Your task to perform on an android device: Search for pizza restaurants on Maps Image 0: 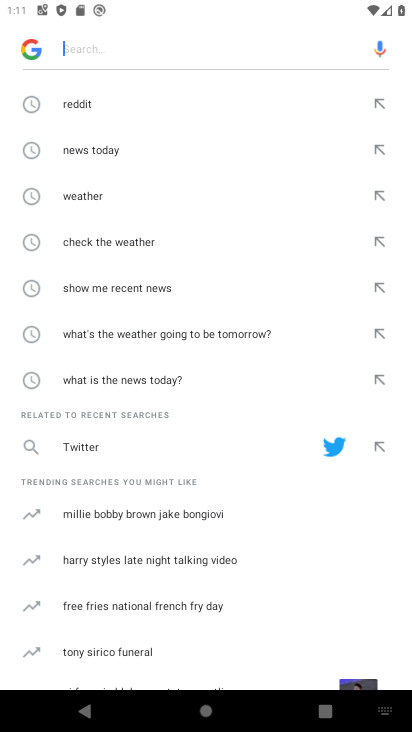
Step 0: press home button
Your task to perform on an android device: Search for pizza restaurants on Maps Image 1: 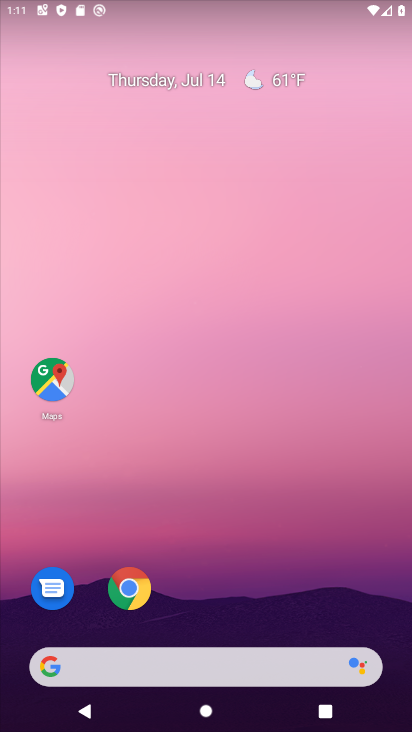
Step 1: click (49, 388)
Your task to perform on an android device: Search for pizza restaurants on Maps Image 2: 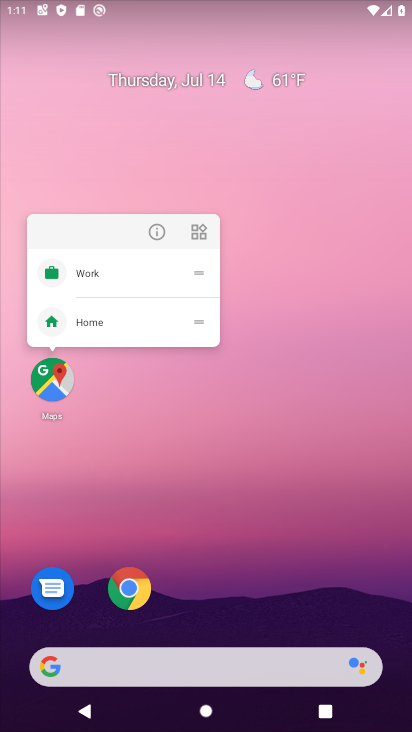
Step 2: click (59, 386)
Your task to perform on an android device: Search for pizza restaurants on Maps Image 3: 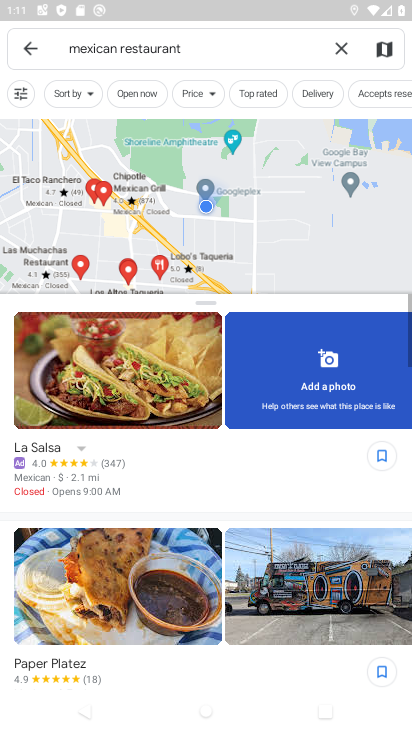
Step 3: click (329, 46)
Your task to perform on an android device: Search for pizza restaurants on Maps Image 4: 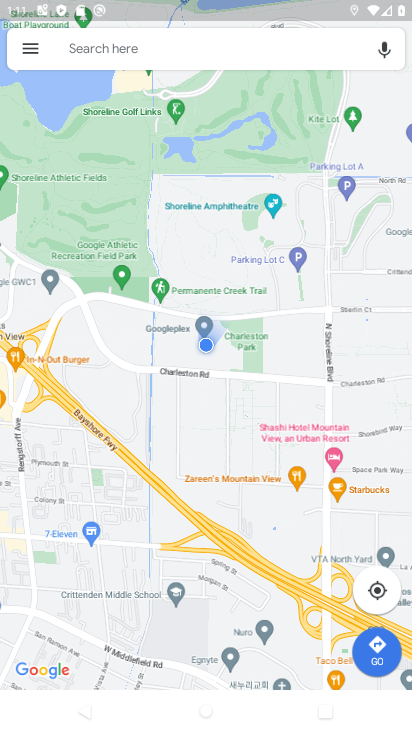
Step 4: click (229, 51)
Your task to perform on an android device: Search for pizza restaurants on Maps Image 5: 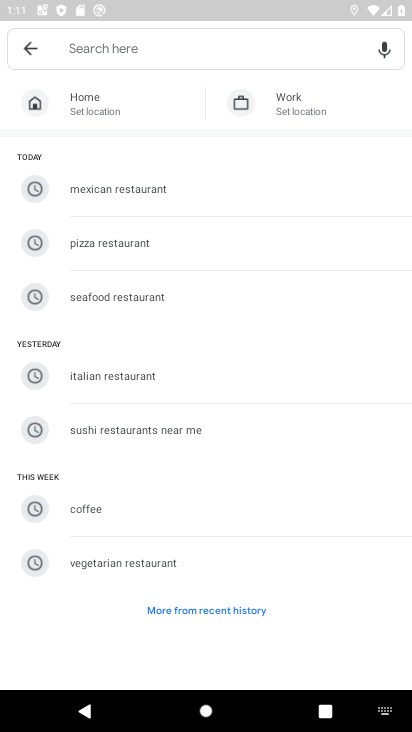
Step 5: type "pizza restaurants  "
Your task to perform on an android device: Search for pizza restaurants on Maps Image 6: 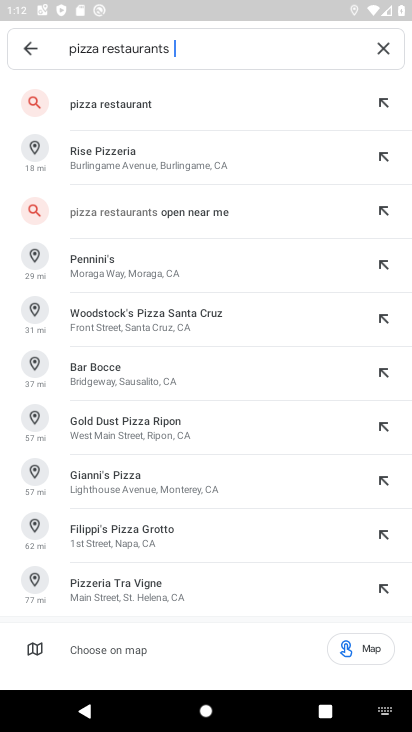
Step 6: click (141, 101)
Your task to perform on an android device: Search for pizza restaurants on Maps Image 7: 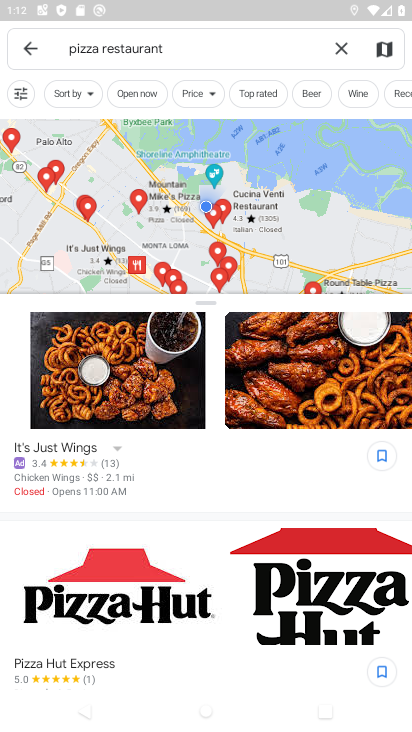
Step 7: task complete